Your task to perform on an android device: open a bookmark in the chrome app Image 0: 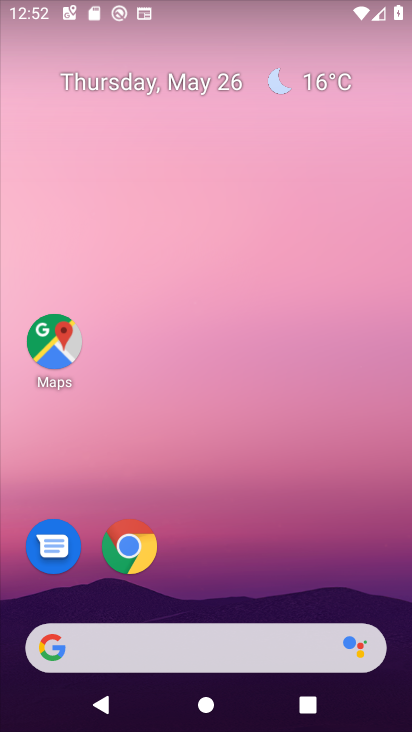
Step 0: click (129, 551)
Your task to perform on an android device: open a bookmark in the chrome app Image 1: 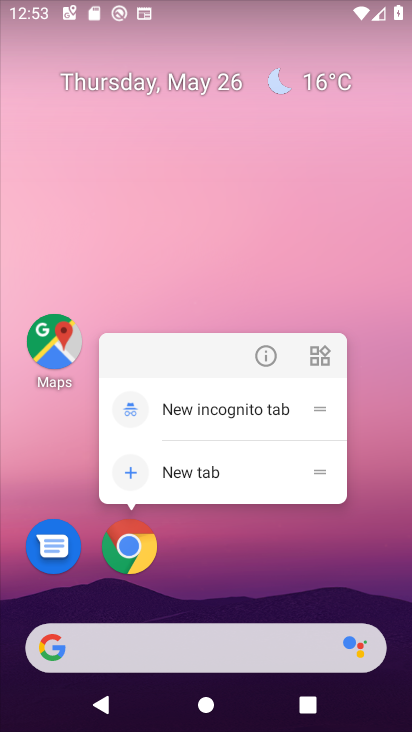
Step 1: click (130, 542)
Your task to perform on an android device: open a bookmark in the chrome app Image 2: 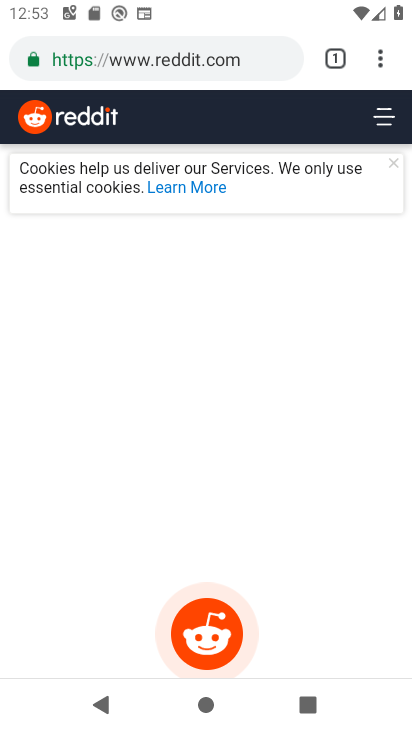
Step 2: click (379, 50)
Your task to perform on an android device: open a bookmark in the chrome app Image 3: 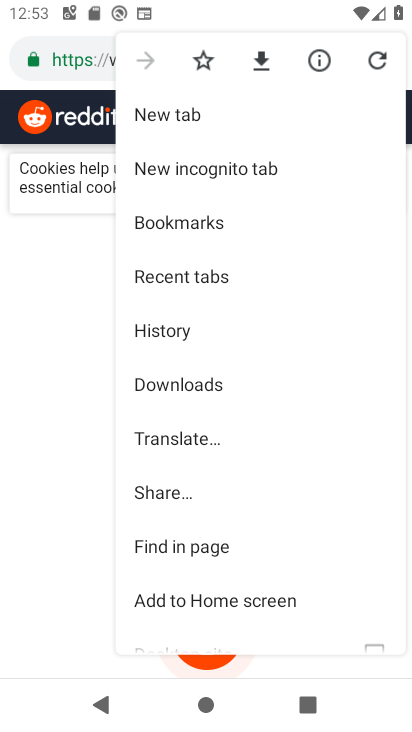
Step 3: click (217, 218)
Your task to perform on an android device: open a bookmark in the chrome app Image 4: 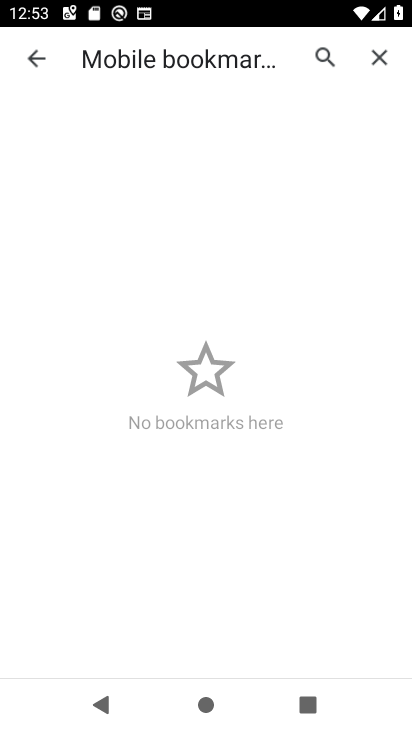
Step 4: task complete